Your task to perform on an android device: Open the map Image 0: 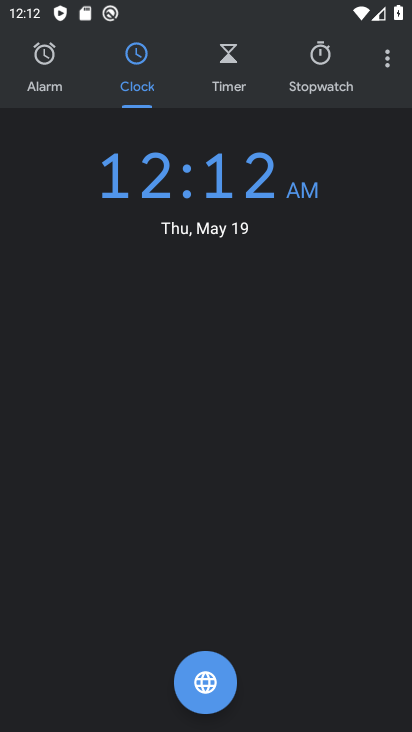
Step 0: press home button
Your task to perform on an android device: Open the map Image 1: 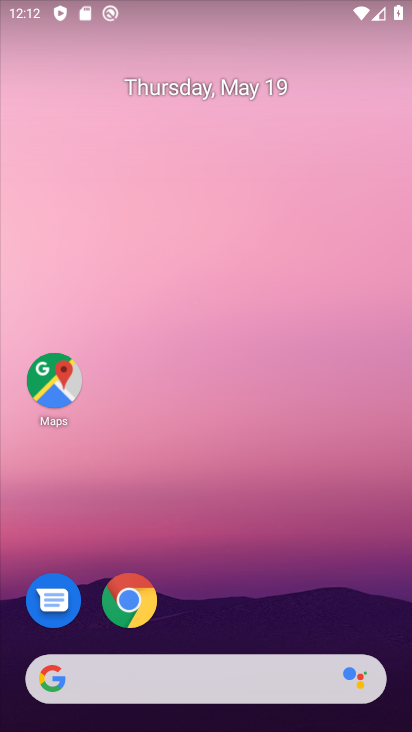
Step 1: click (48, 385)
Your task to perform on an android device: Open the map Image 2: 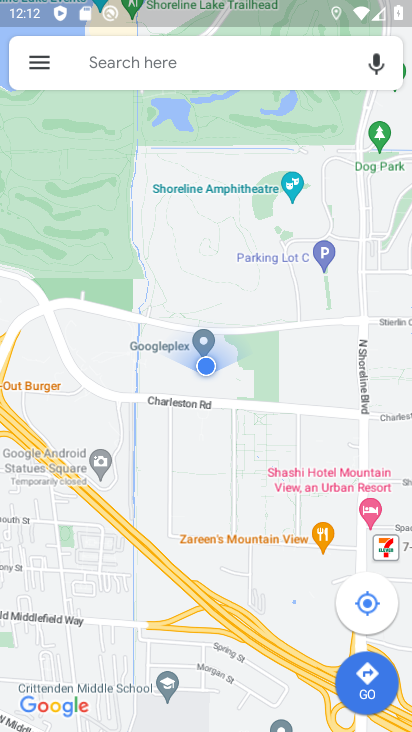
Step 2: task complete